Your task to perform on an android device: toggle data saver in the chrome app Image 0: 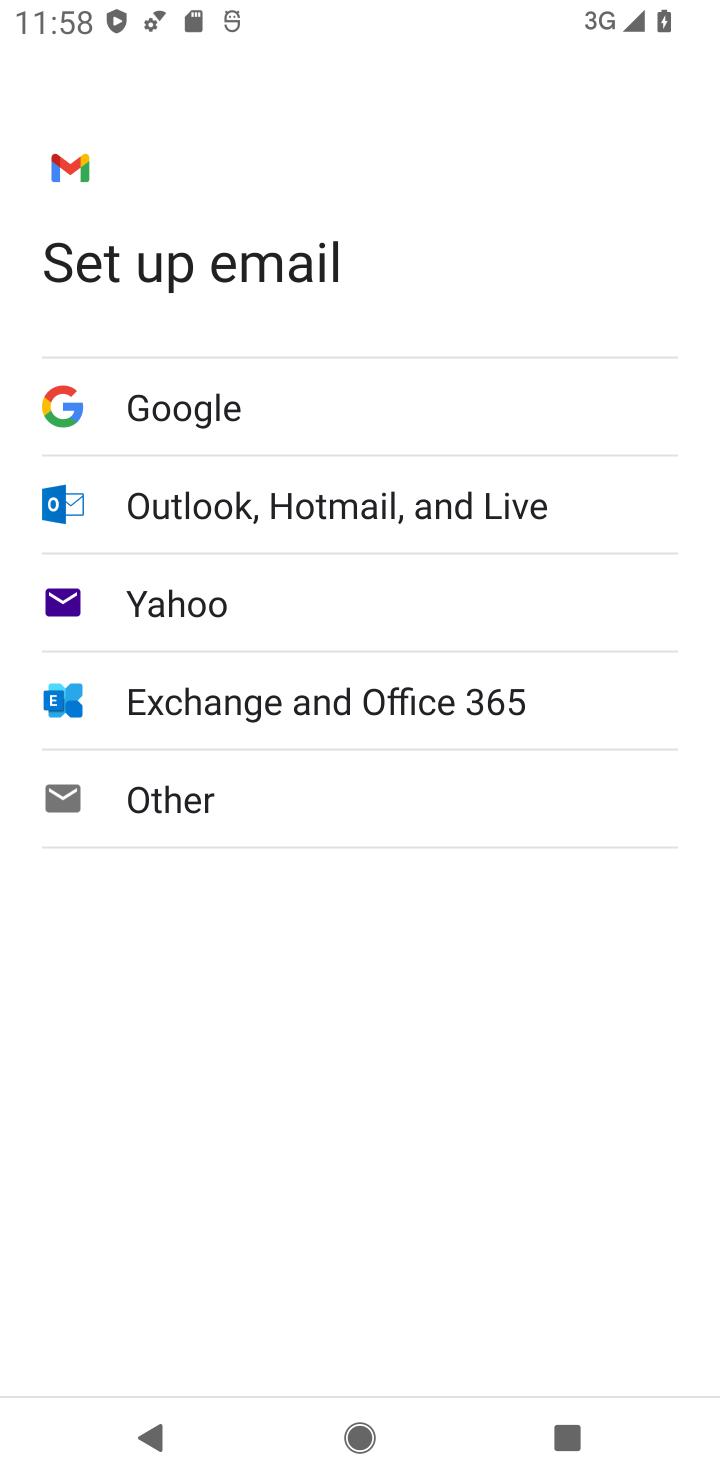
Step 0: press home button
Your task to perform on an android device: toggle data saver in the chrome app Image 1: 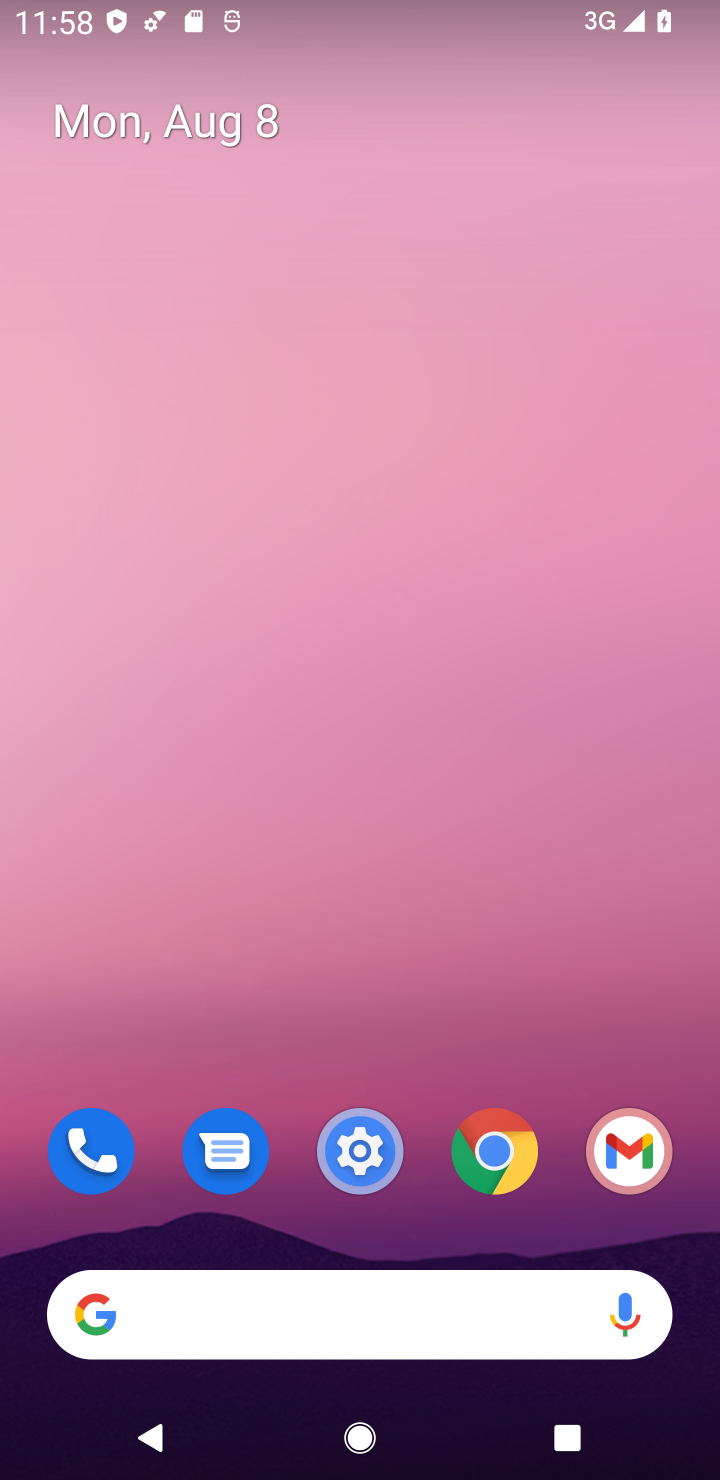
Step 1: click (480, 1132)
Your task to perform on an android device: toggle data saver in the chrome app Image 2: 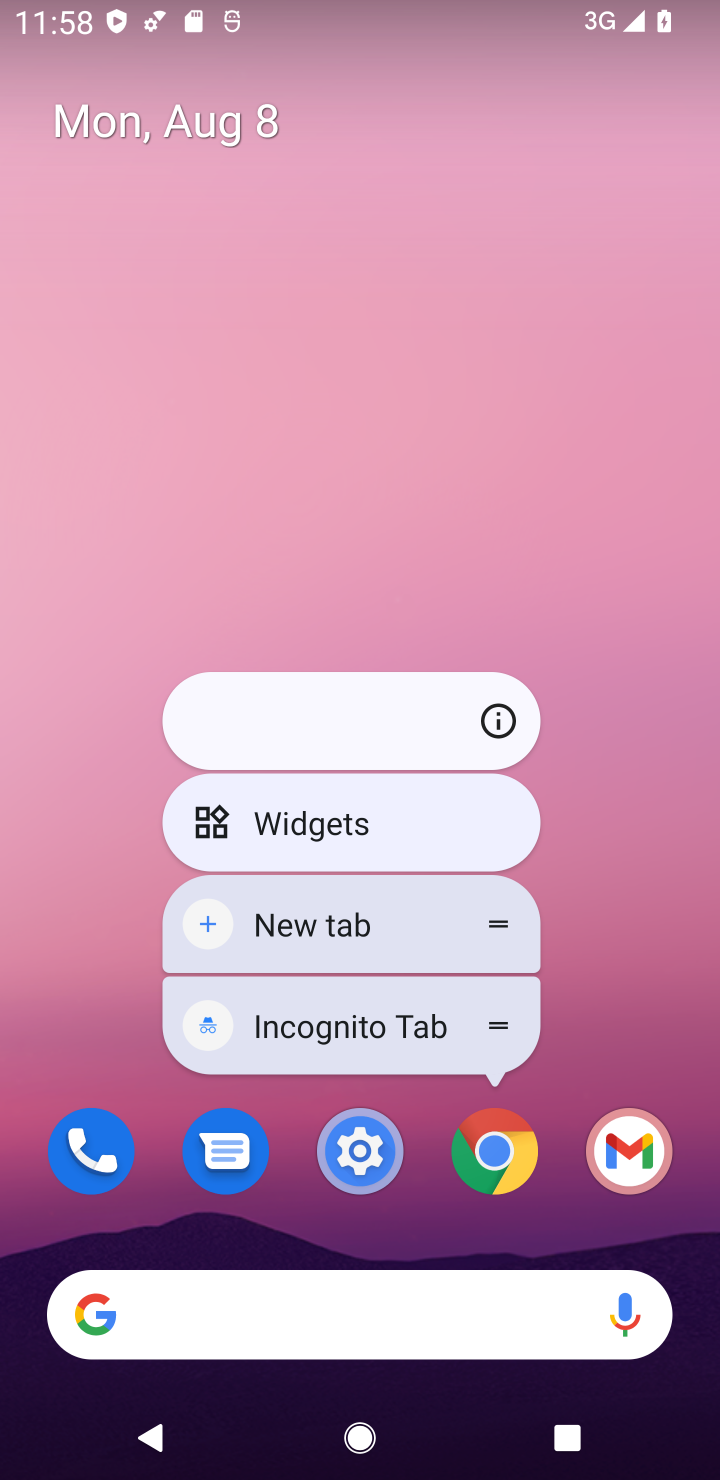
Step 2: click (485, 1142)
Your task to perform on an android device: toggle data saver in the chrome app Image 3: 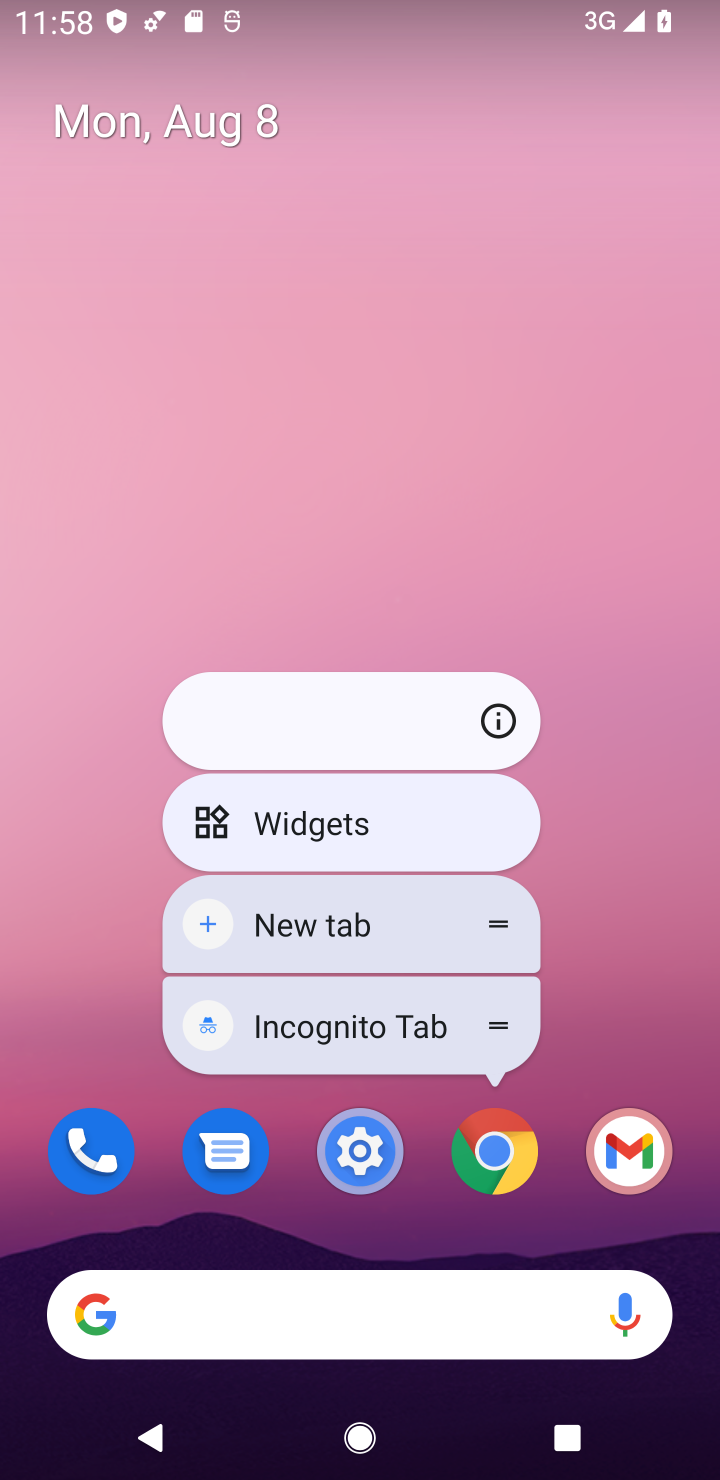
Step 3: click (502, 1168)
Your task to perform on an android device: toggle data saver in the chrome app Image 4: 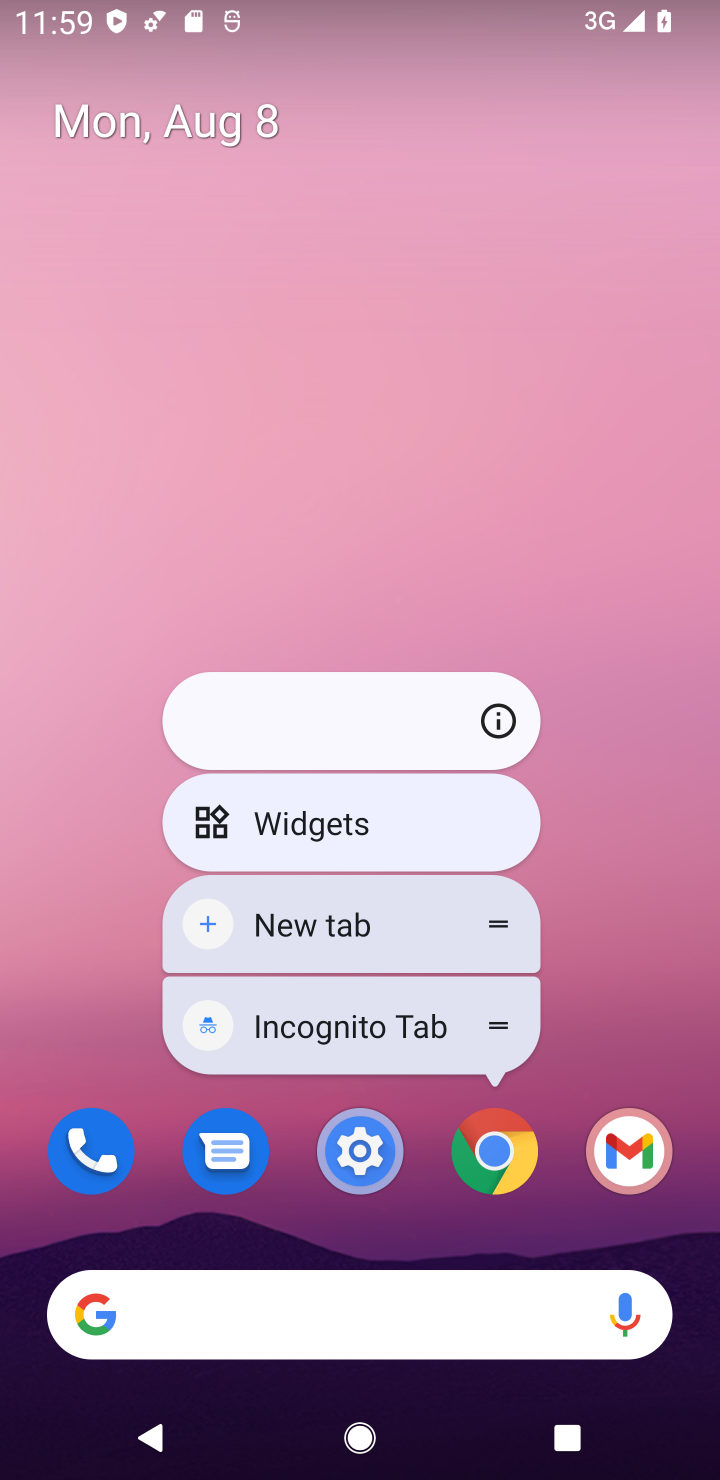
Step 4: click (526, 1144)
Your task to perform on an android device: toggle data saver in the chrome app Image 5: 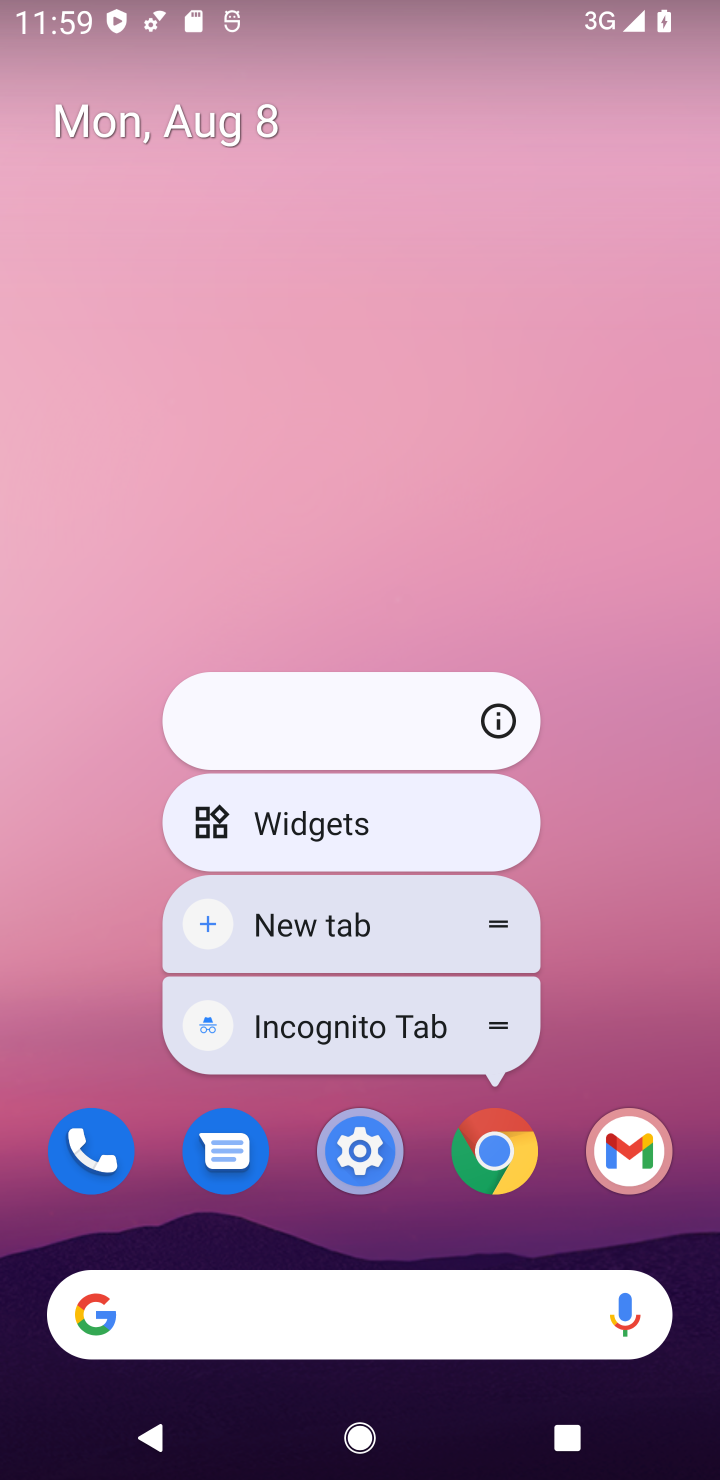
Step 5: click (515, 1160)
Your task to perform on an android device: toggle data saver in the chrome app Image 6: 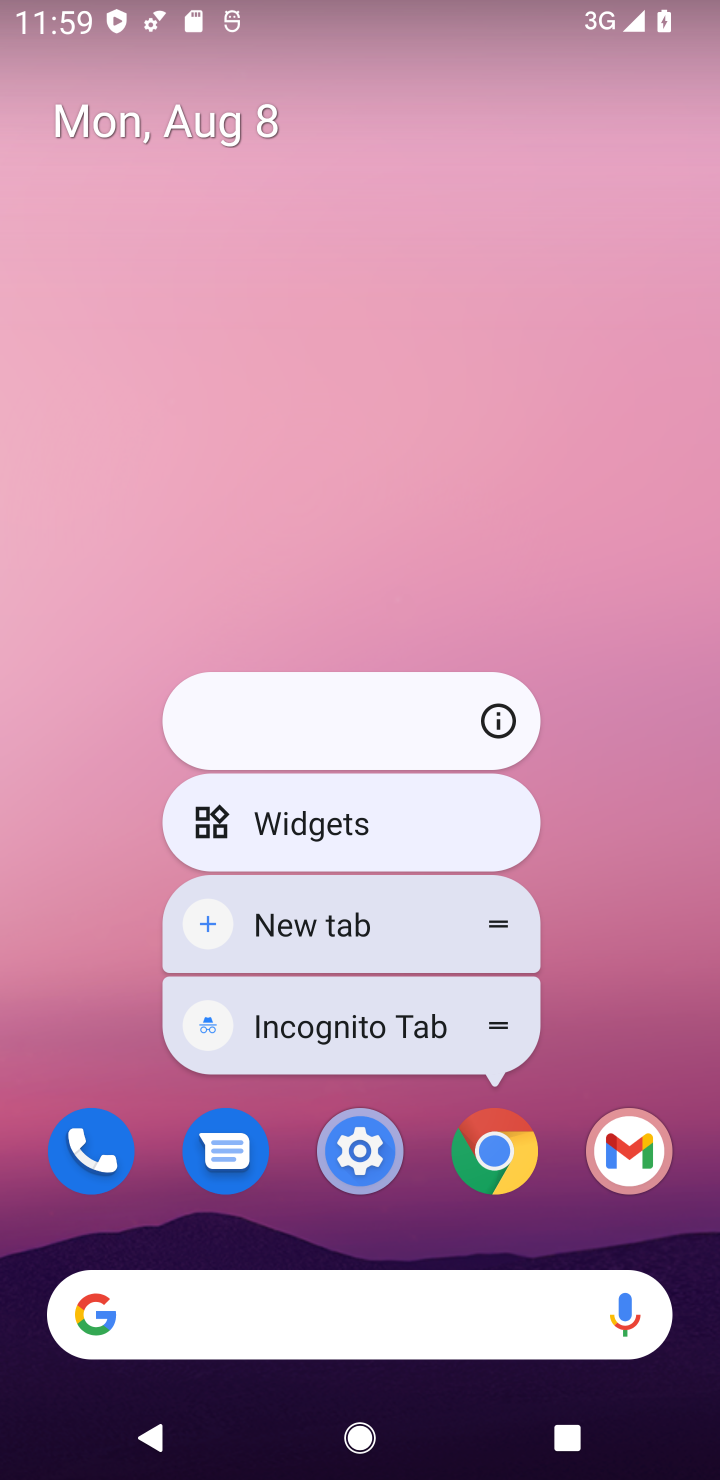
Step 6: click (480, 1140)
Your task to perform on an android device: toggle data saver in the chrome app Image 7: 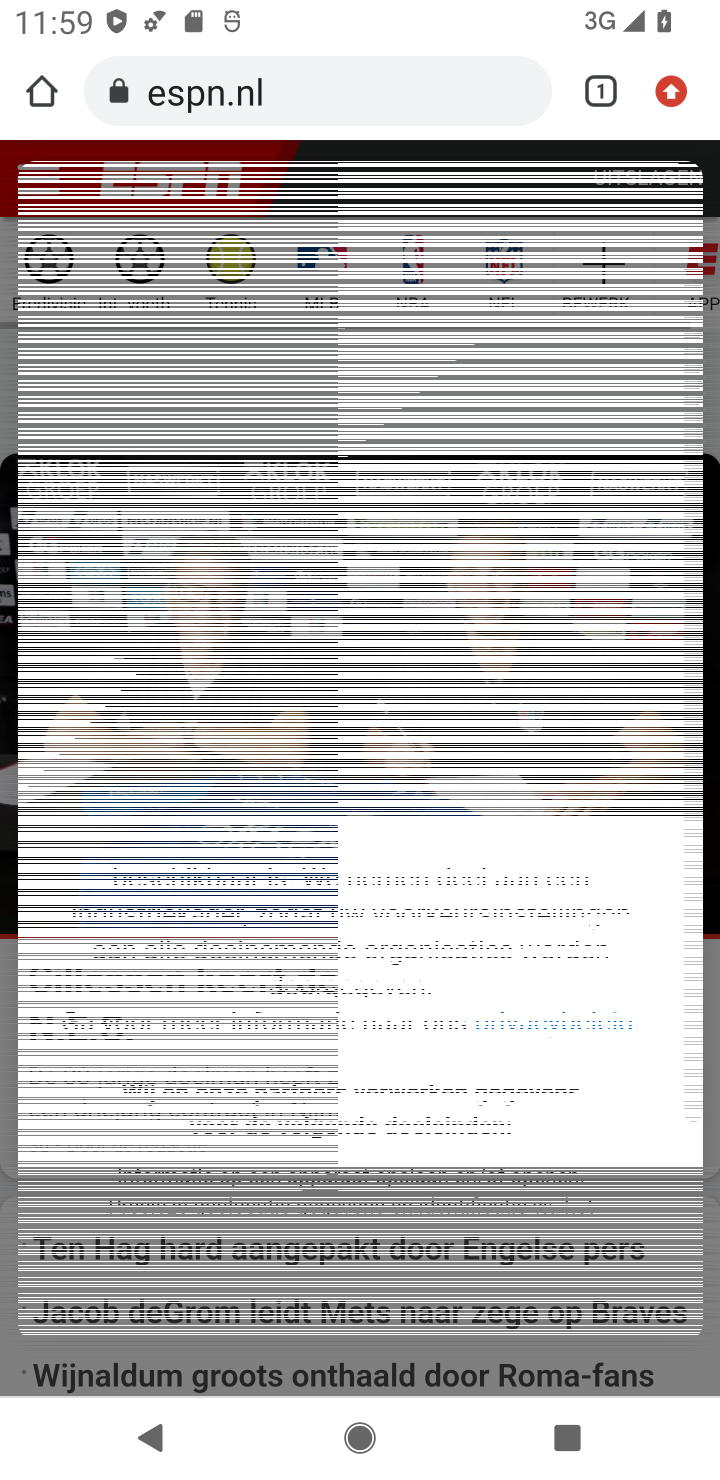
Step 7: click (667, 103)
Your task to perform on an android device: toggle data saver in the chrome app Image 8: 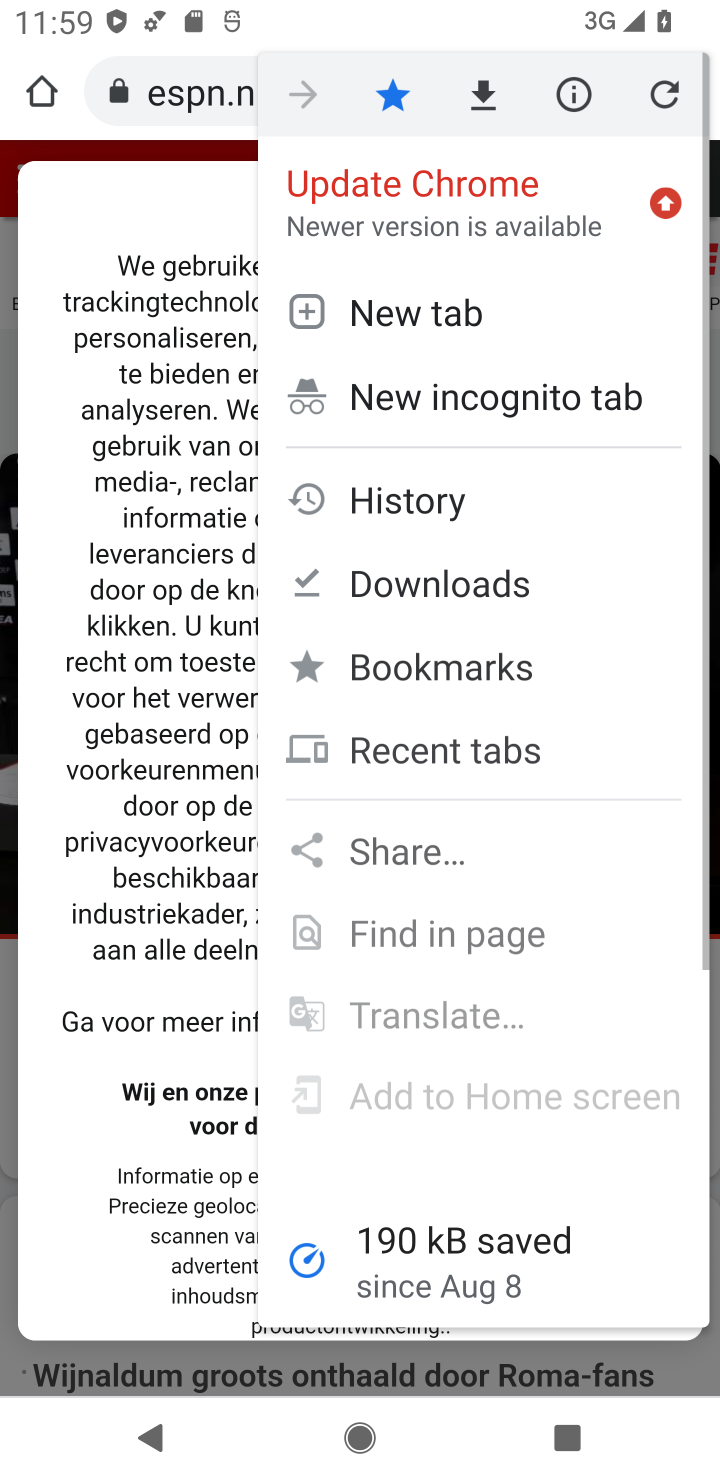
Step 8: click (674, 96)
Your task to perform on an android device: toggle data saver in the chrome app Image 9: 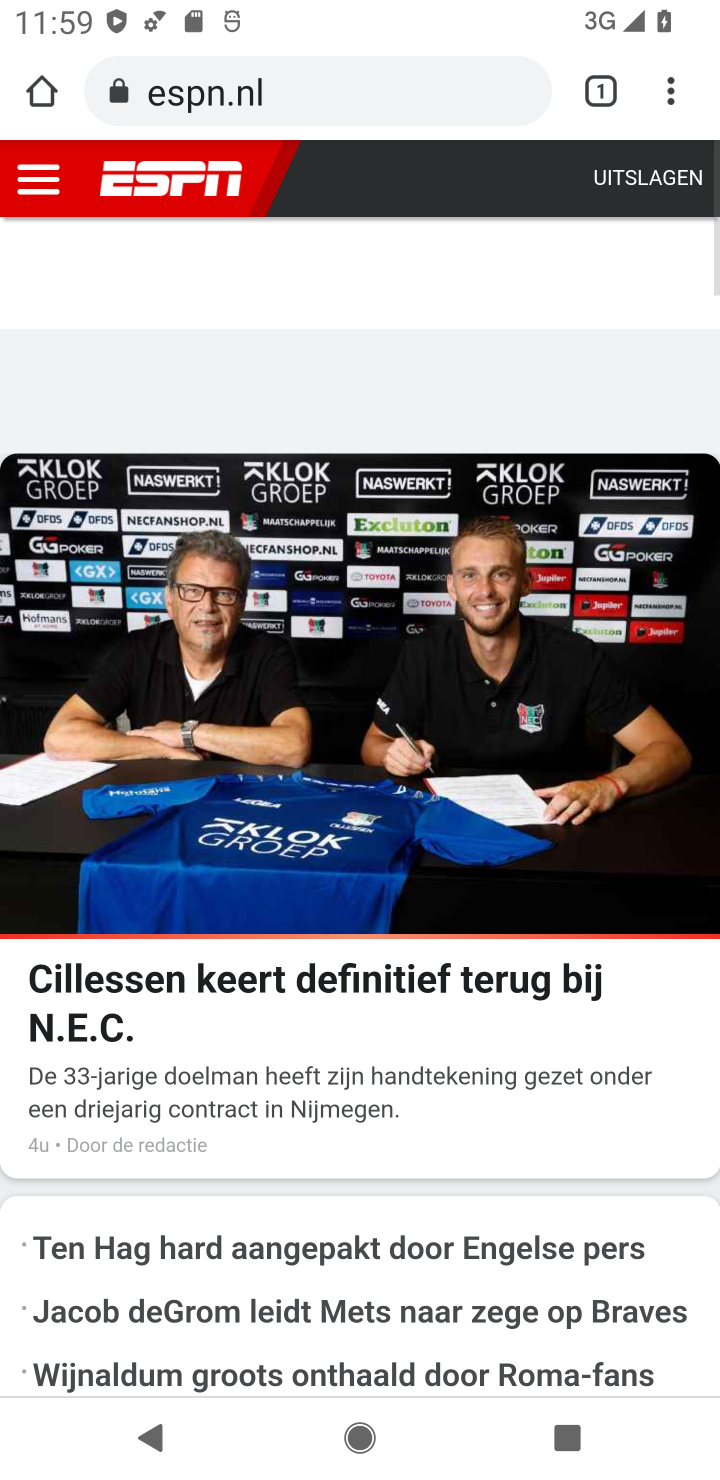
Step 9: click (659, 104)
Your task to perform on an android device: toggle data saver in the chrome app Image 10: 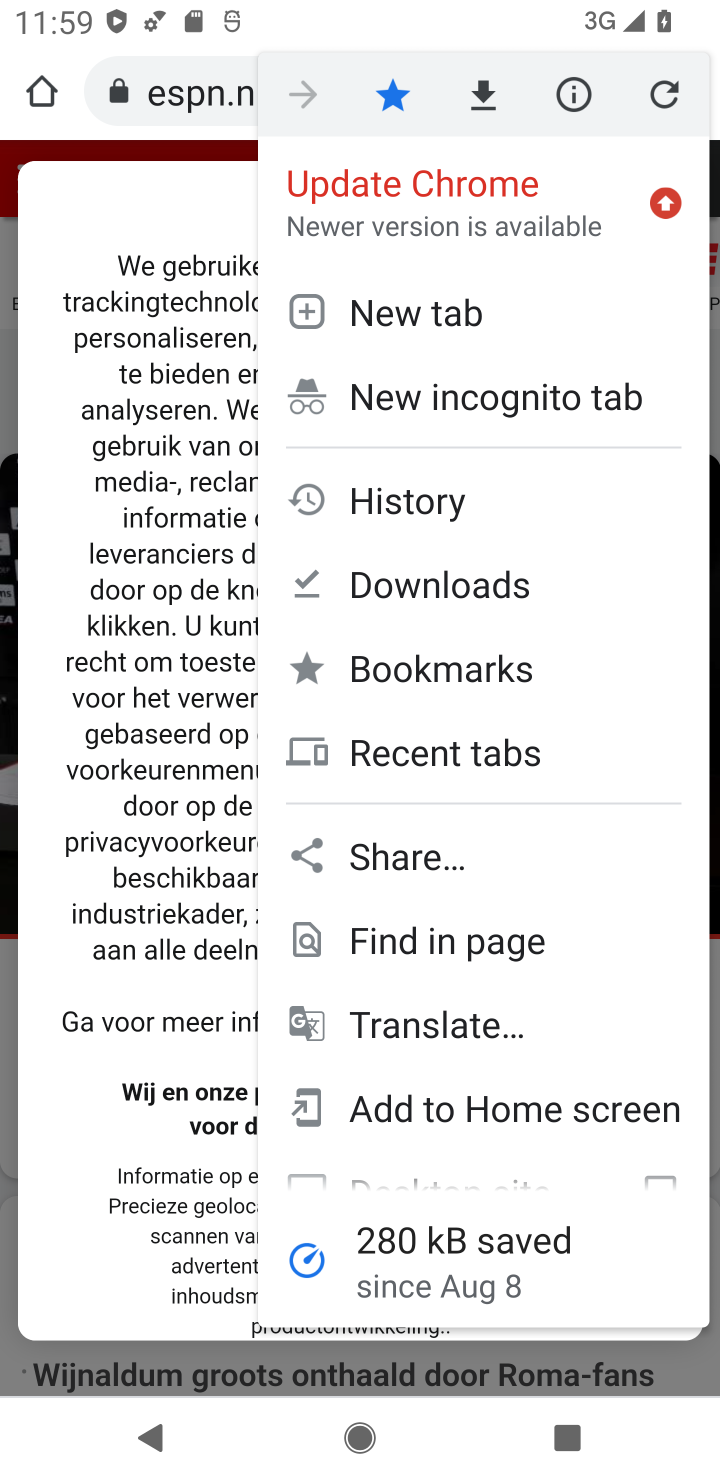
Step 10: drag from (470, 1137) to (378, 645)
Your task to perform on an android device: toggle data saver in the chrome app Image 11: 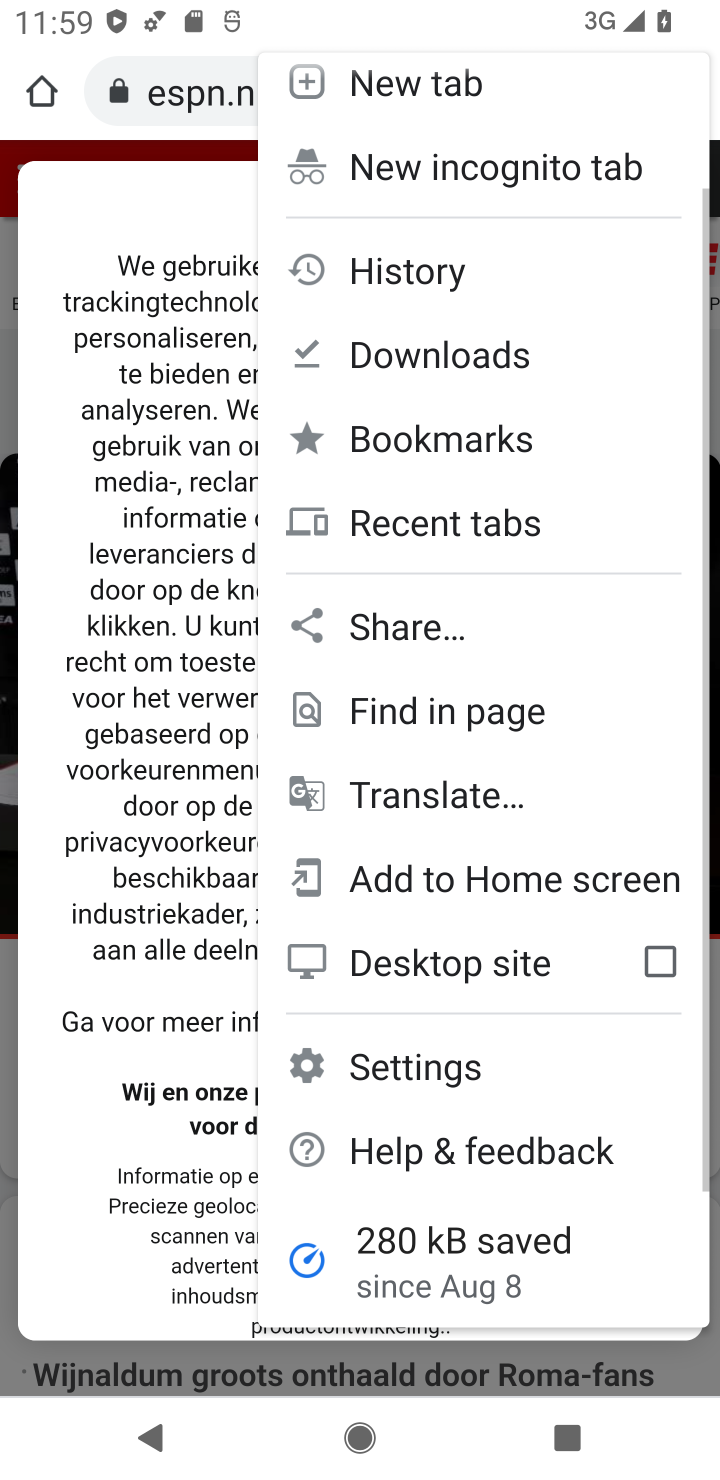
Step 11: click (424, 1071)
Your task to perform on an android device: toggle data saver in the chrome app Image 12: 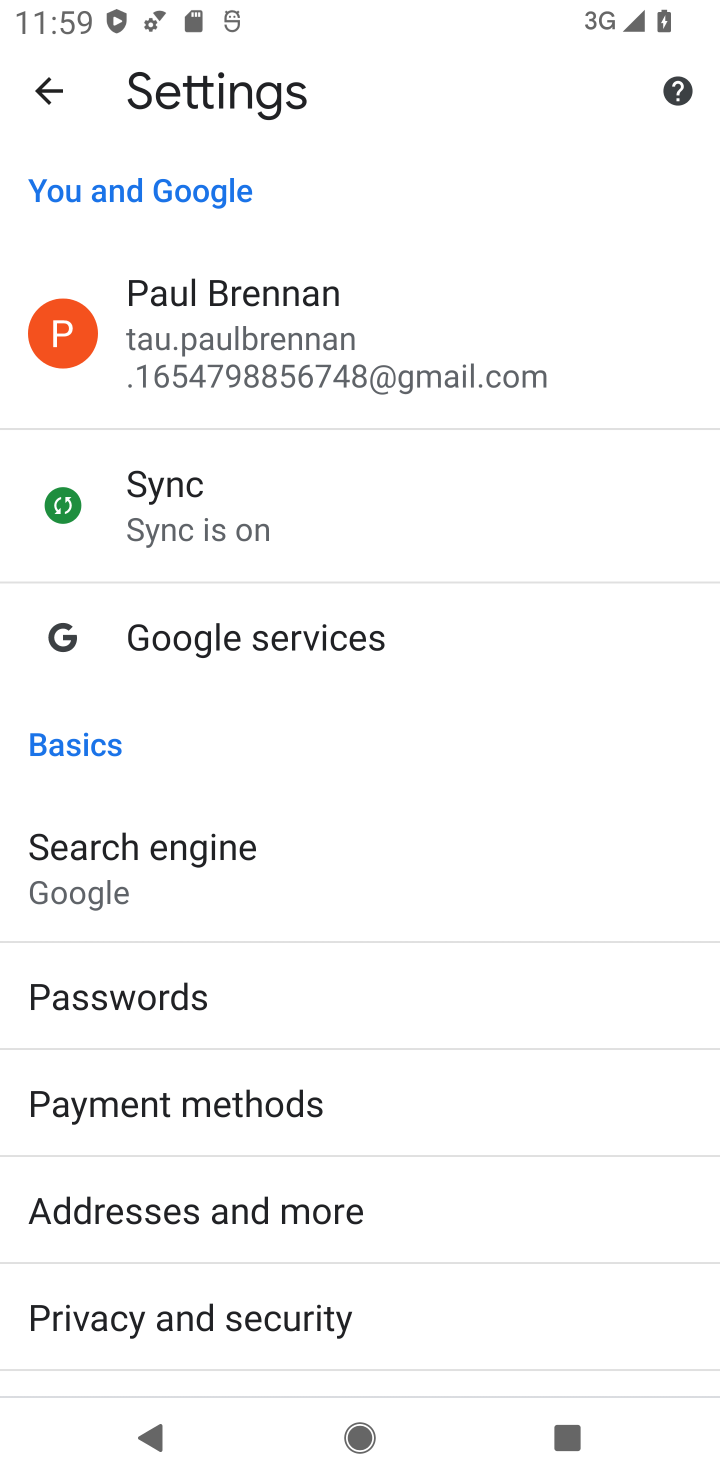
Step 12: drag from (243, 1210) to (149, 700)
Your task to perform on an android device: toggle data saver in the chrome app Image 13: 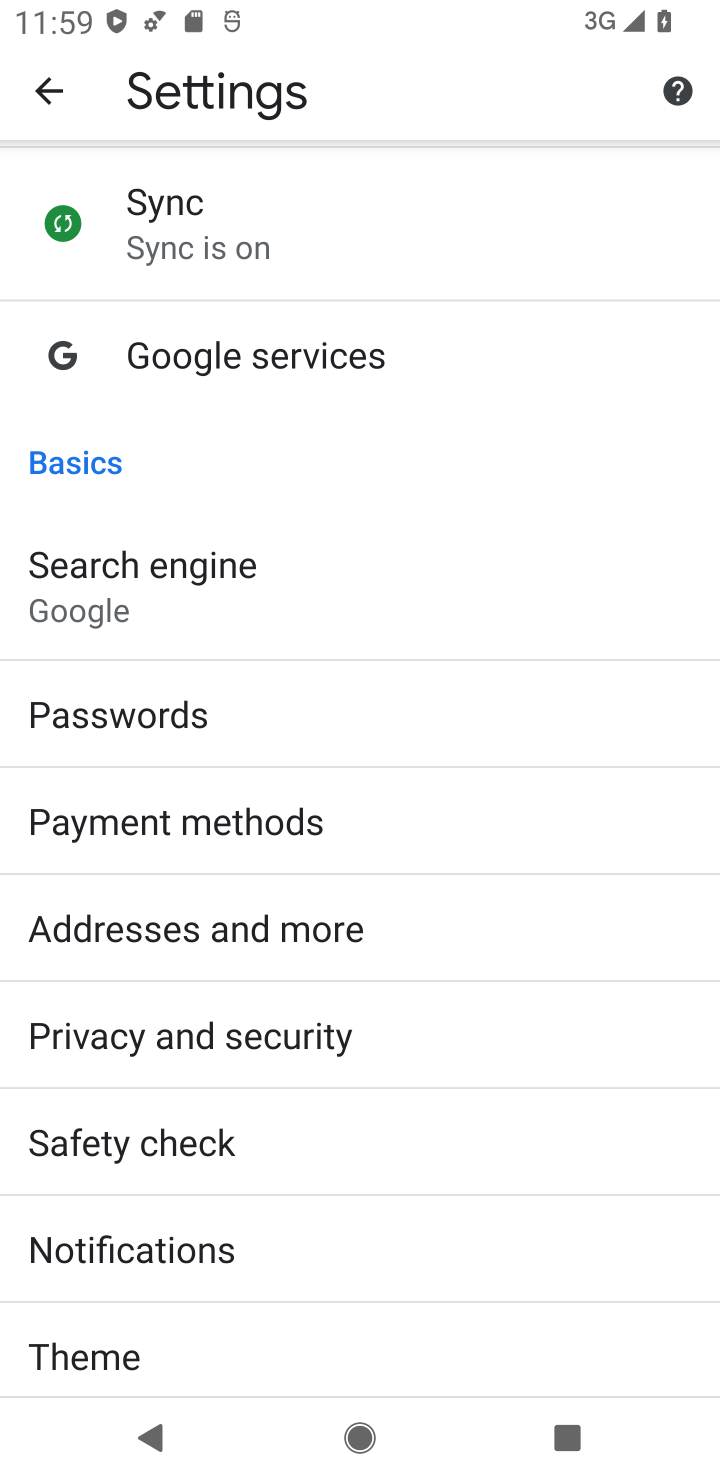
Step 13: drag from (217, 1346) to (153, 733)
Your task to perform on an android device: toggle data saver in the chrome app Image 14: 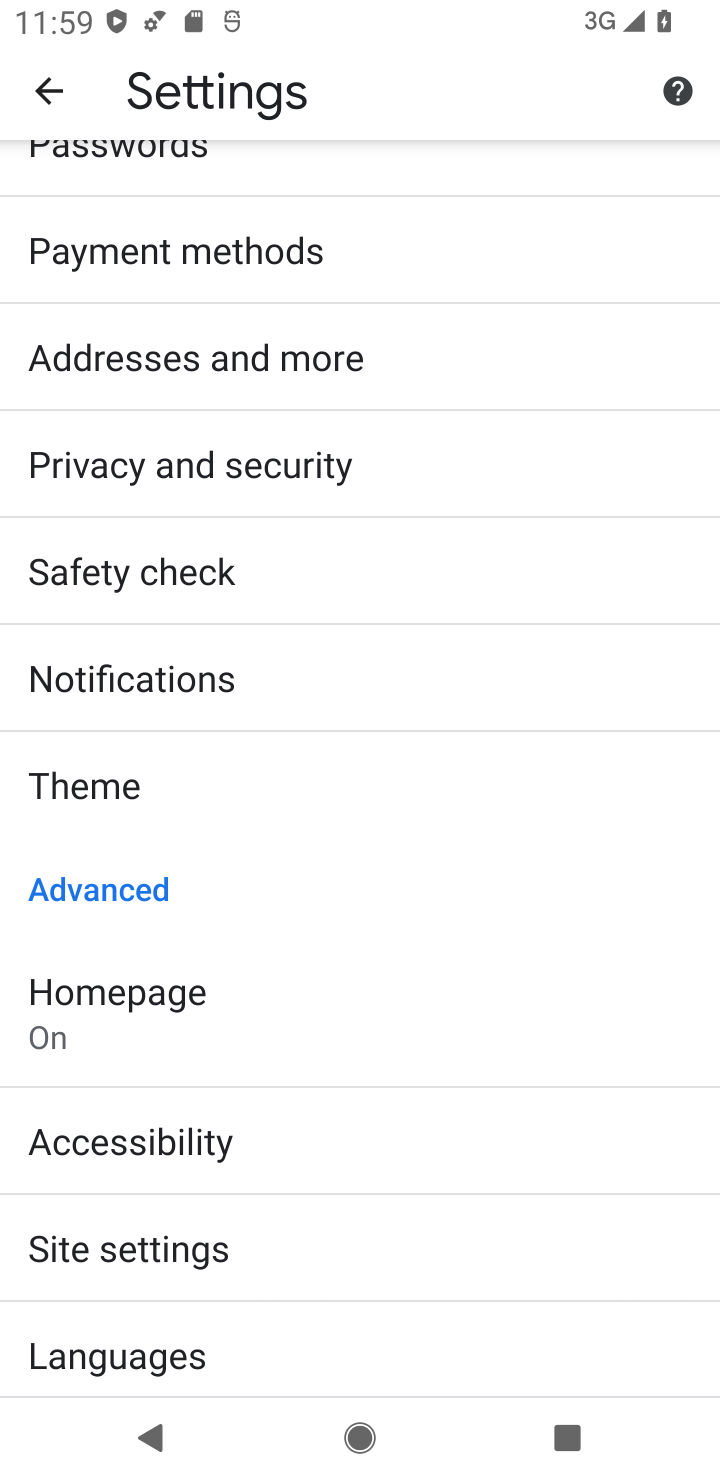
Step 14: drag from (326, 1341) to (212, 759)
Your task to perform on an android device: toggle data saver in the chrome app Image 15: 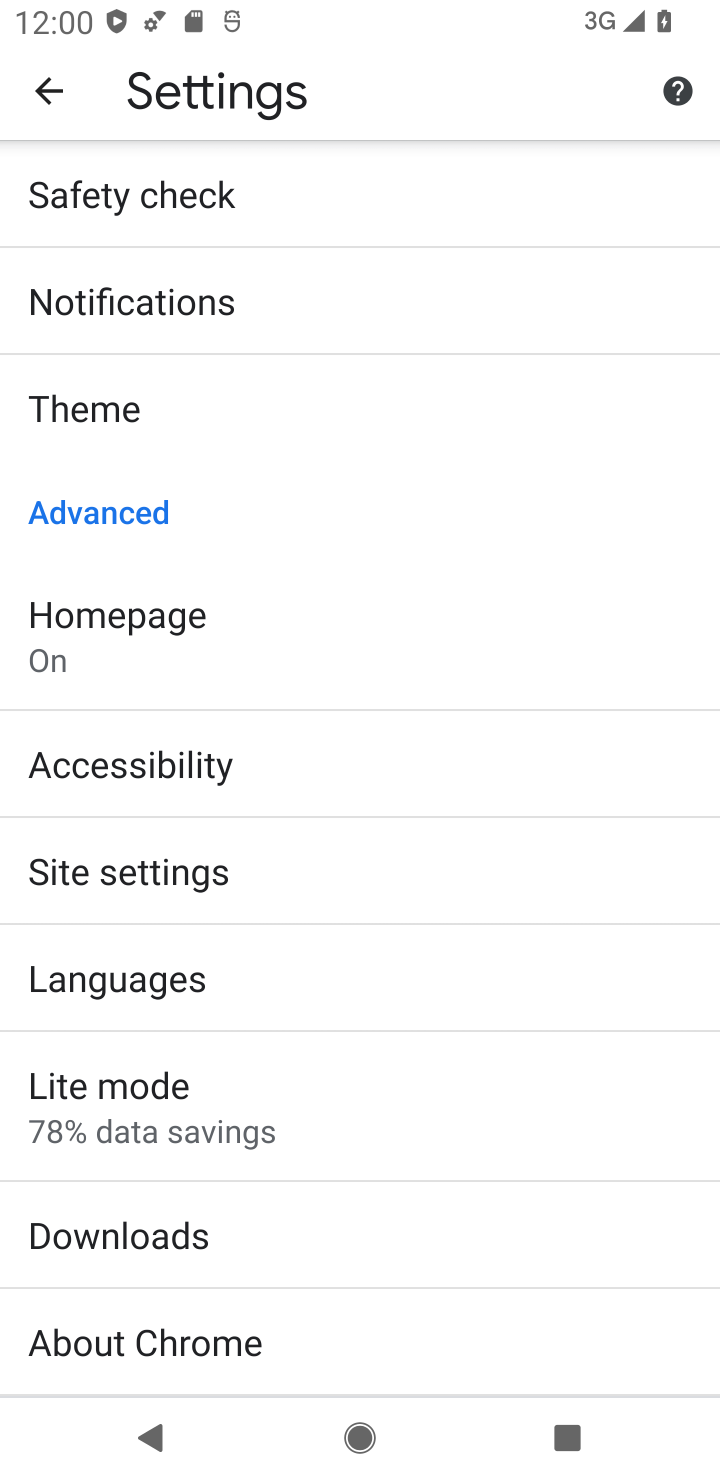
Step 15: click (160, 1106)
Your task to perform on an android device: toggle data saver in the chrome app Image 16: 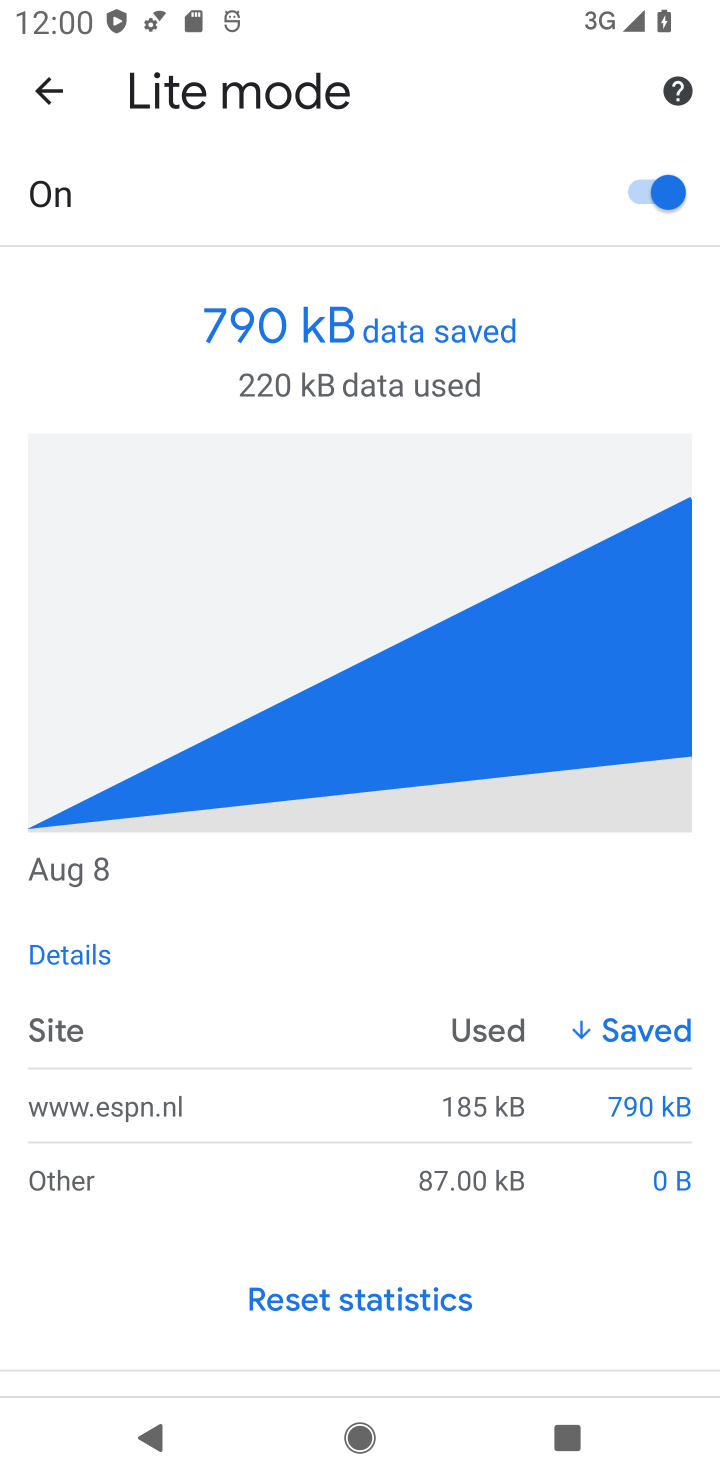
Step 16: click (630, 196)
Your task to perform on an android device: toggle data saver in the chrome app Image 17: 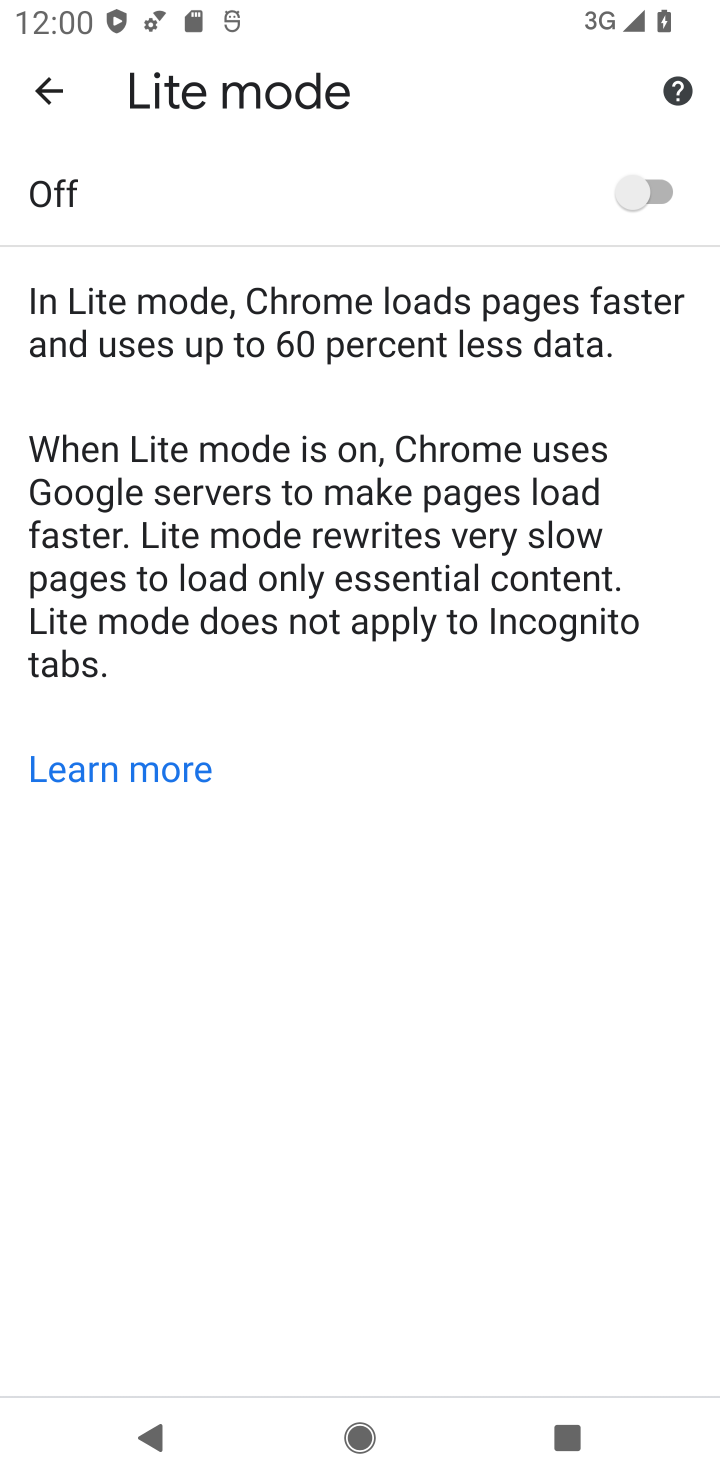
Step 17: task complete